Your task to perform on an android device: turn off notifications in google photos Image 0: 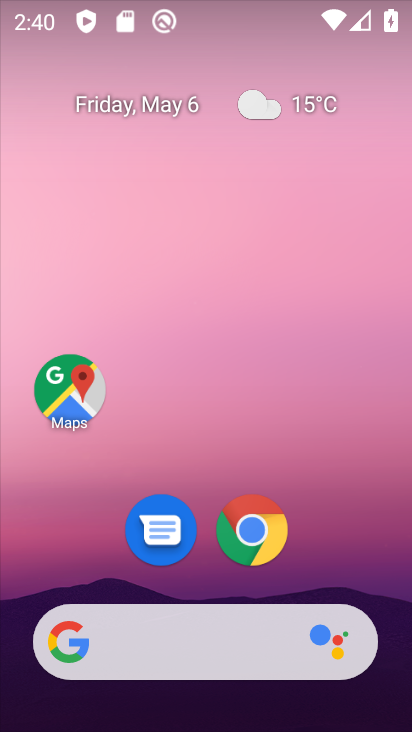
Step 0: drag from (343, 553) to (391, 33)
Your task to perform on an android device: turn off notifications in google photos Image 1: 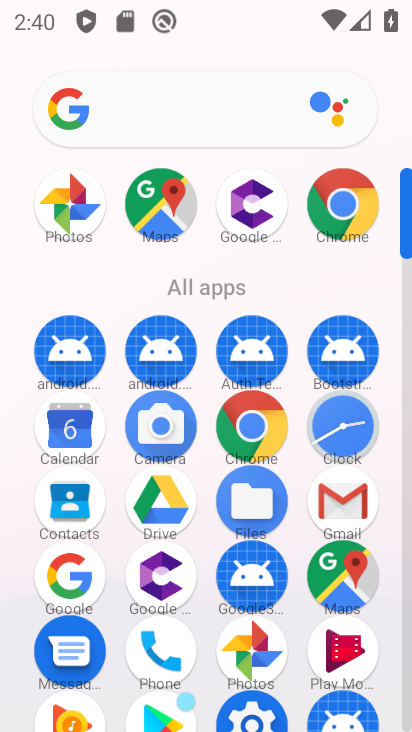
Step 1: click (56, 194)
Your task to perform on an android device: turn off notifications in google photos Image 2: 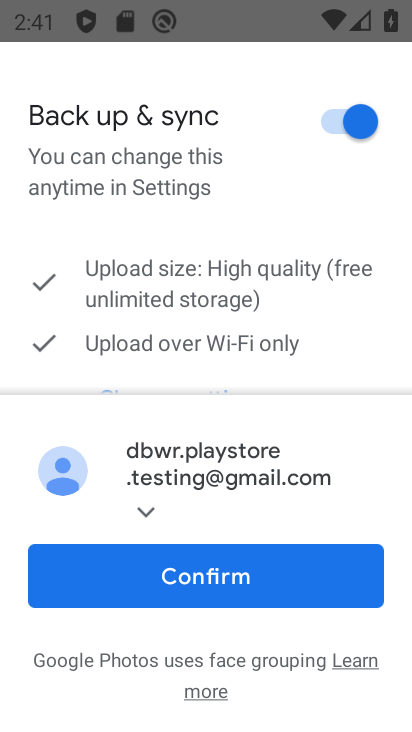
Step 2: click (228, 566)
Your task to perform on an android device: turn off notifications in google photos Image 3: 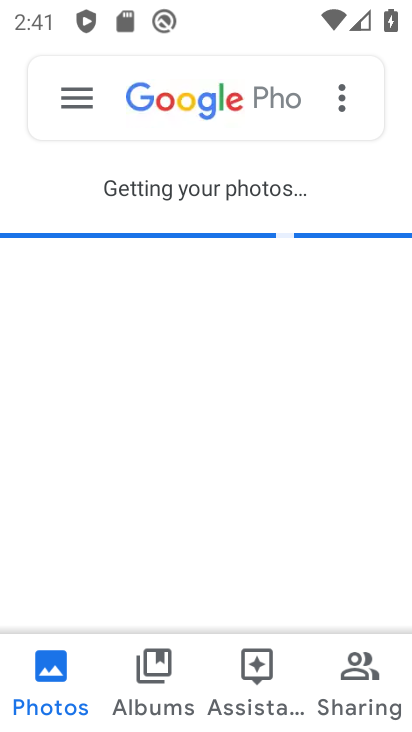
Step 3: click (79, 103)
Your task to perform on an android device: turn off notifications in google photos Image 4: 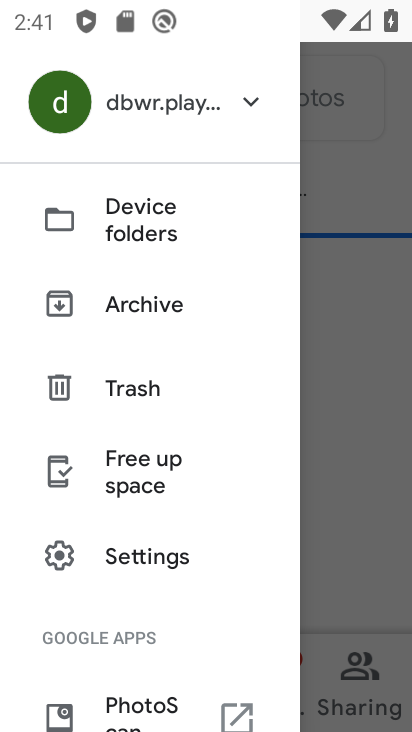
Step 4: click (101, 559)
Your task to perform on an android device: turn off notifications in google photos Image 5: 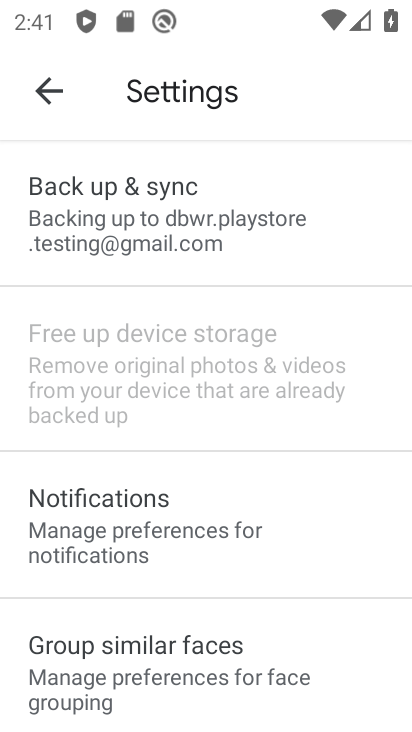
Step 5: click (86, 520)
Your task to perform on an android device: turn off notifications in google photos Image 6: 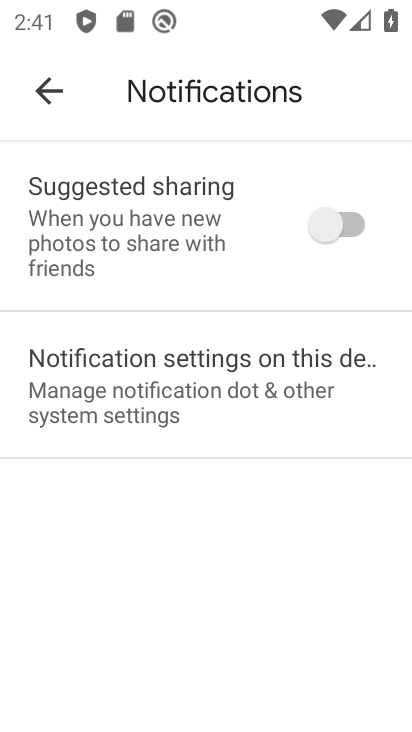
Step 6: click (31, 98)
Your task to perform on an android device: turn off notifications in google photos Image 7: 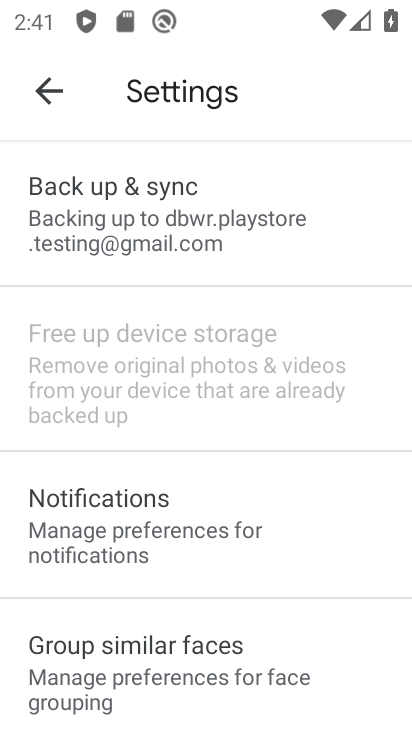
Step 7: click (120, 524)
Your task to perform on an android device: turn off notifications in google photos Image 8: 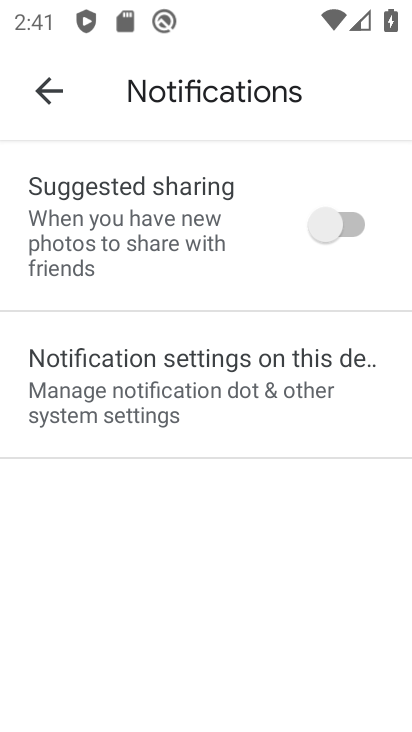
Step 8: click (186, 379)
Your task to perform on an android device: turn off notifications in google photos Image 9: 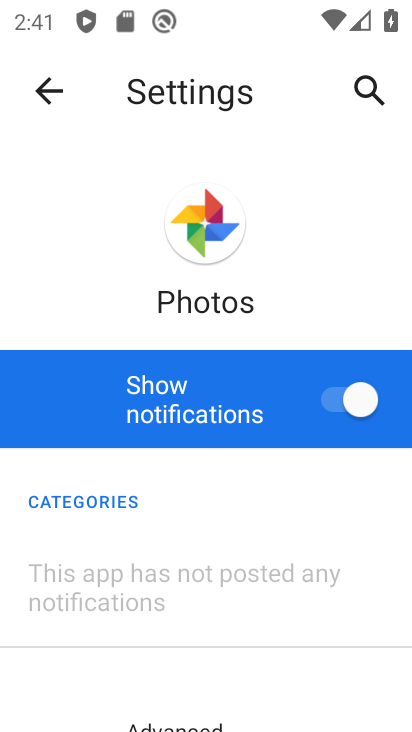
Step 9: click (351, 403)
Your task to perform on an android device: turn off notifications in google photos Image 10: 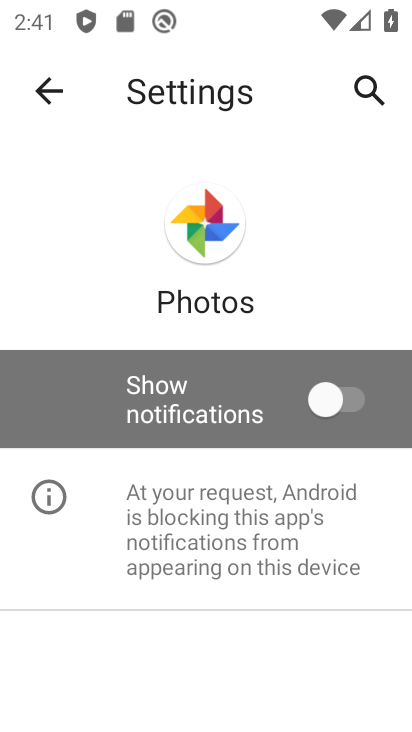
Step 10: task complete